Your task to perform on an android device: open chrome privacy settings Image 0: 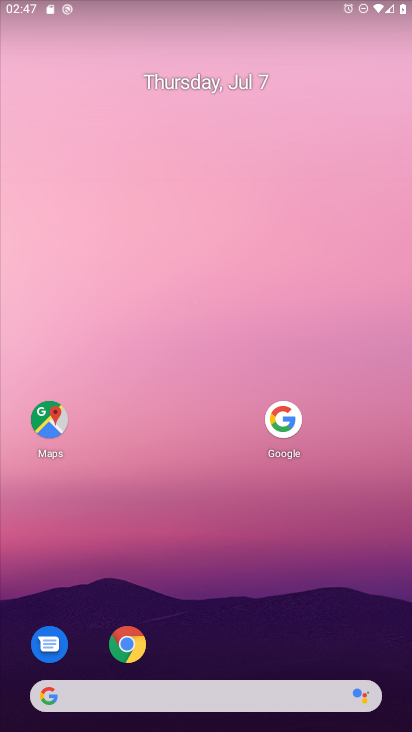
Step 0: drag from (156, 690) to (326, 97)
Your task to perform on an android device: open chrome privacy settings Image 1: 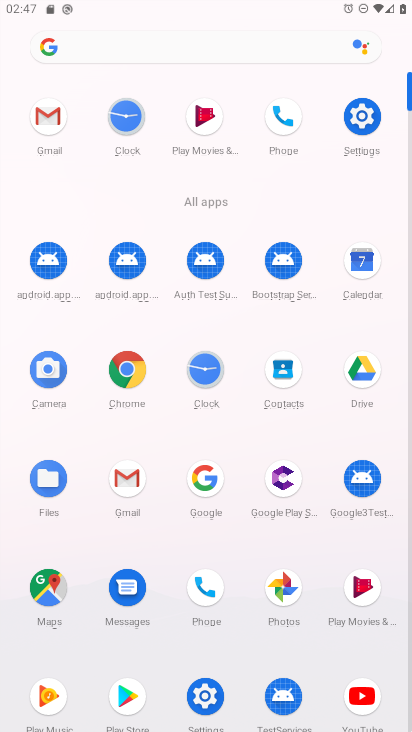
Step 1: click (125, 377)
Your task to perform on an android device: open chrome privacy settings Image 2: 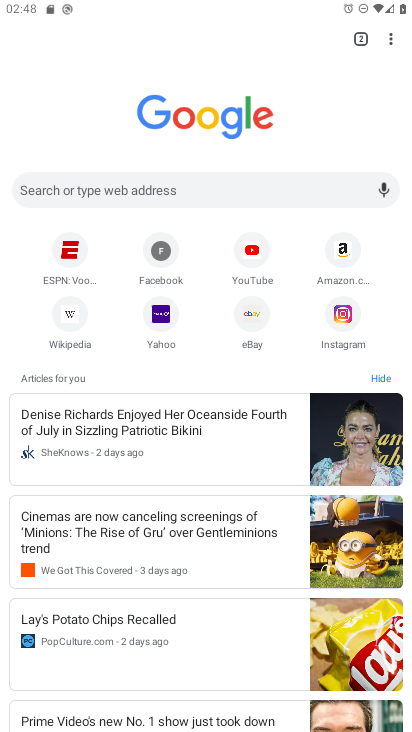
Step 2: drag from (391, 37) to (256, 326)
Your task to perform on an android device: open chrome privacy settings Image 3: 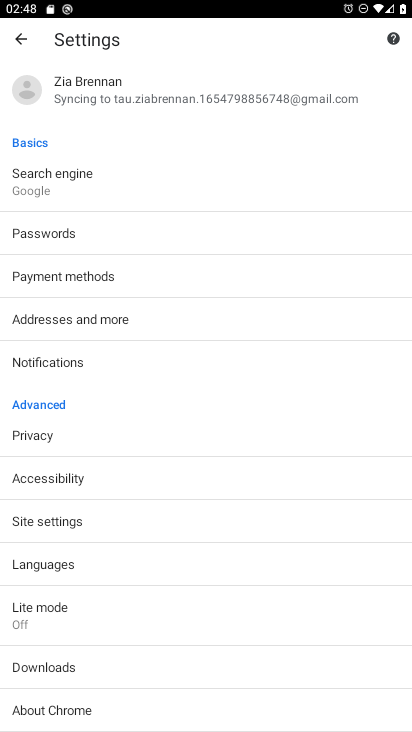
Step 3: click (60, 435)
Your task to perform on an android device: open chrome privacy settings Image 4: 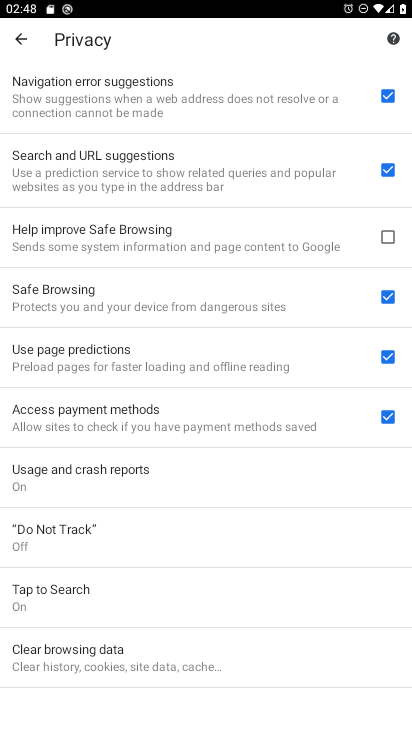
Step 4: task complete